Your task to perform on an android device: Set an alarm for 7pm Image 0: 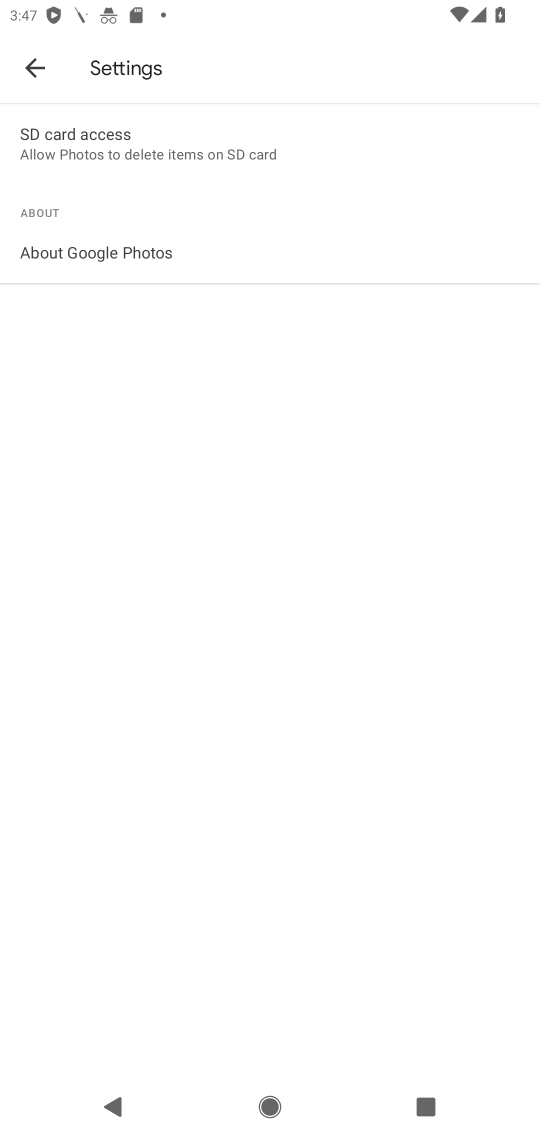
Step 0: press home button
Your task to perform on an android device: Set an alarm for 7pm Image 1: 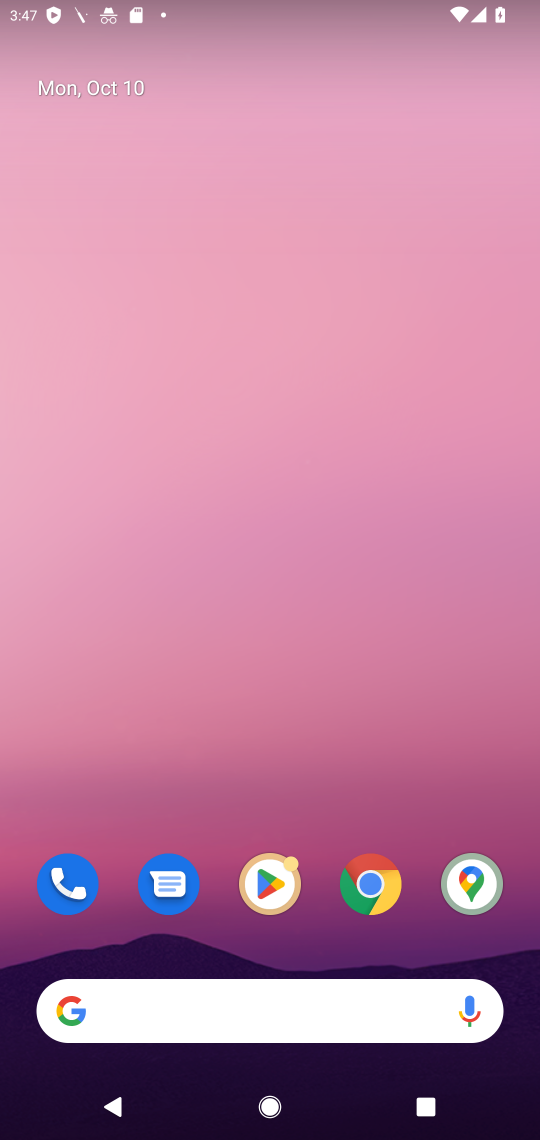
Step 1: drag from (209, 701) to (202, 292)
Your task to perform on an android device: Set an alarm for 7pm Image 2: 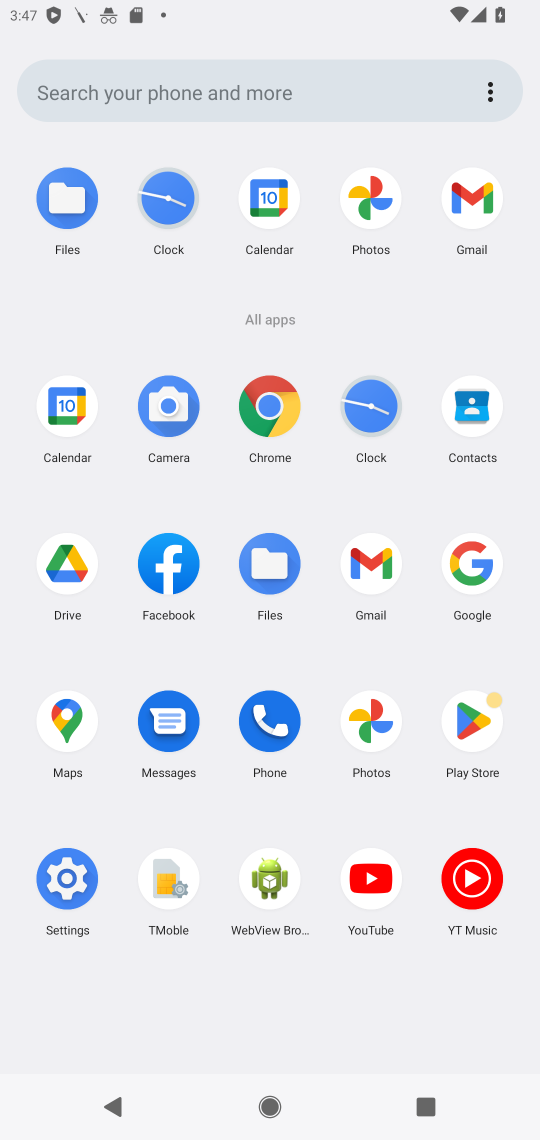
Step 2: click (159, 193)
Your task to perform on an android device: Set an alarm for 7pm Image 3: 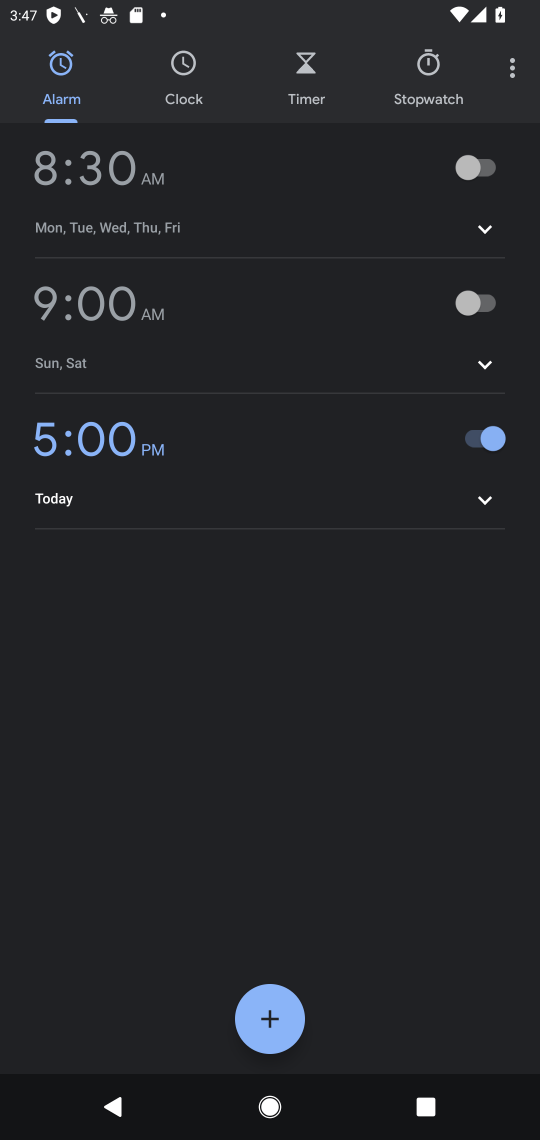
Step 3: click (271, 1024)
Your task to perform on an android device: Set an alarm for 7pm Image 4: 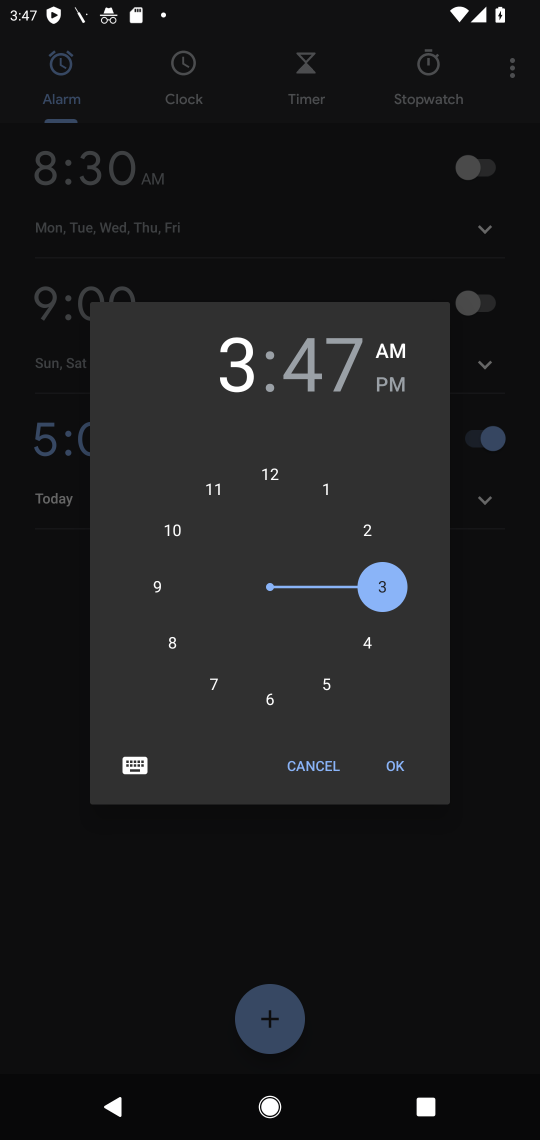
Step 4: click (392, 388)
Your task to perform on an android device: Set an alarm for 7pm Image 5: 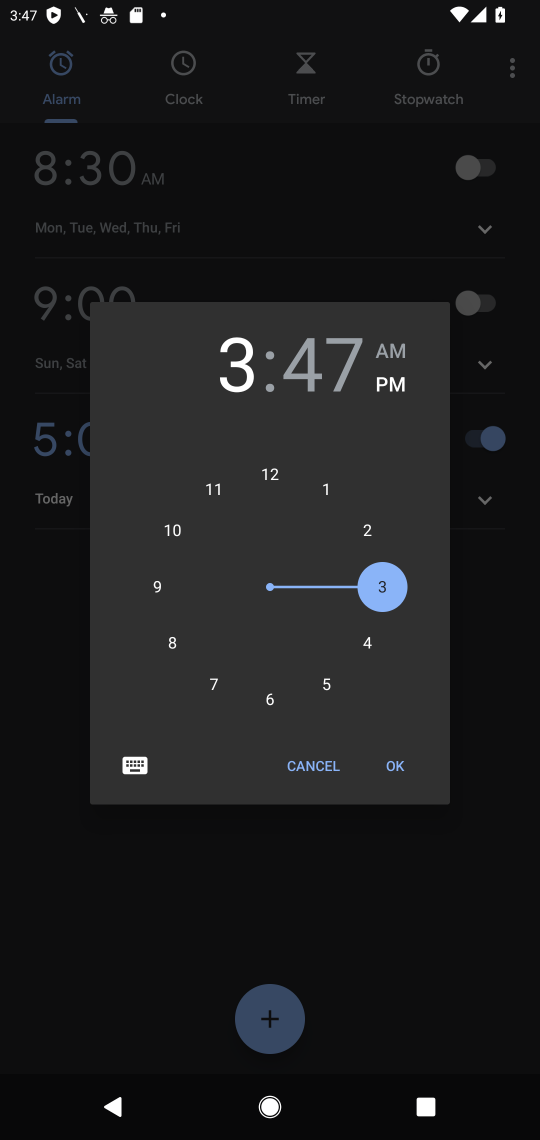
Step 5: click (218, 681)
Your task to perform on an android device: Set an alarm for 7pm Image 6: 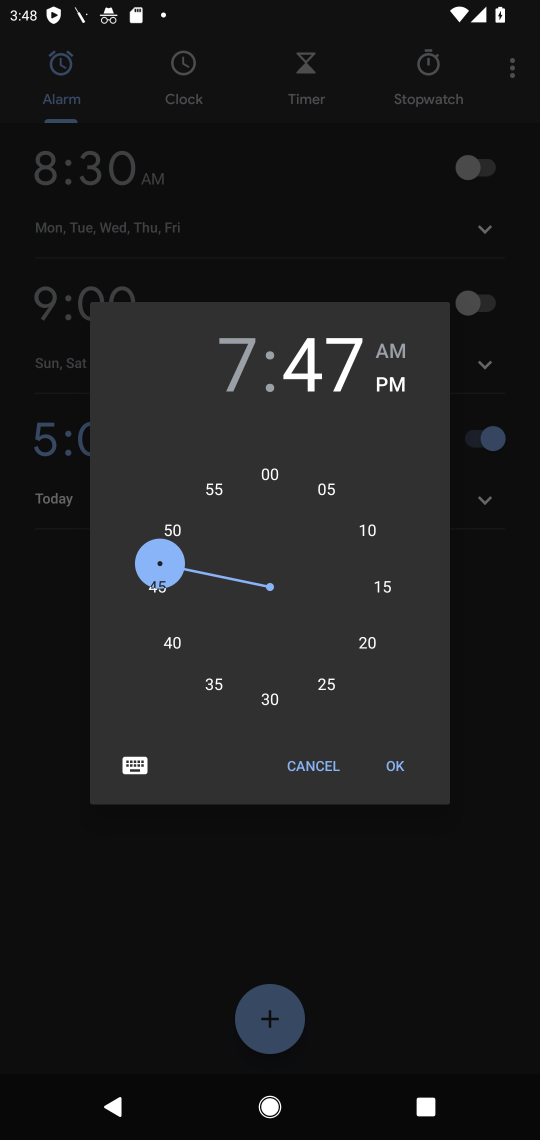
Step 6: click (272, 473)
Your task to perform on an android device: Set an alarm for 7pm Image 7: 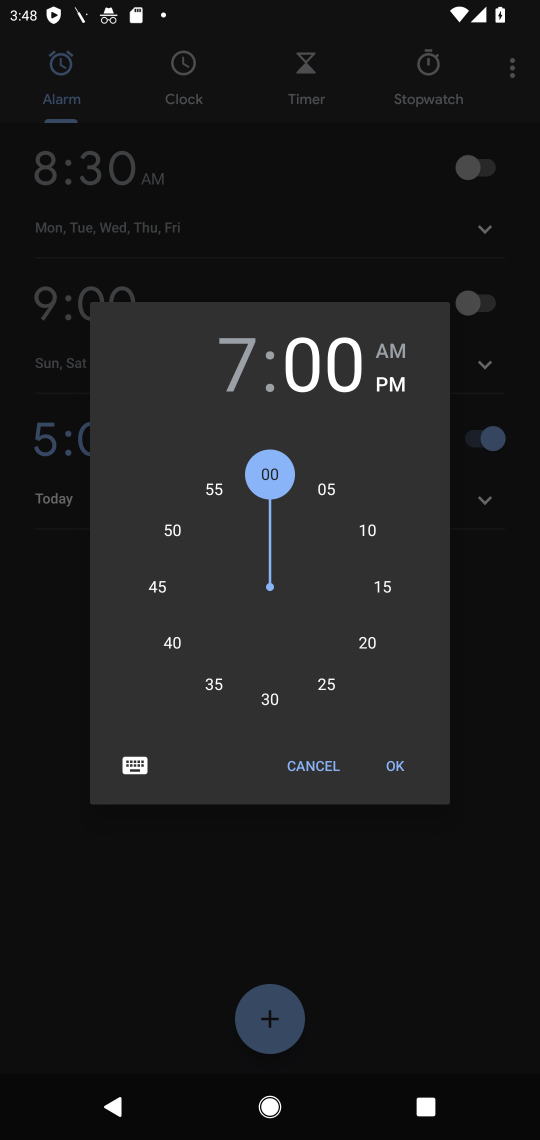
Step 7: click (391, 770)
Your task to perform on an android device: Set an alarm for 7pm Image 8: 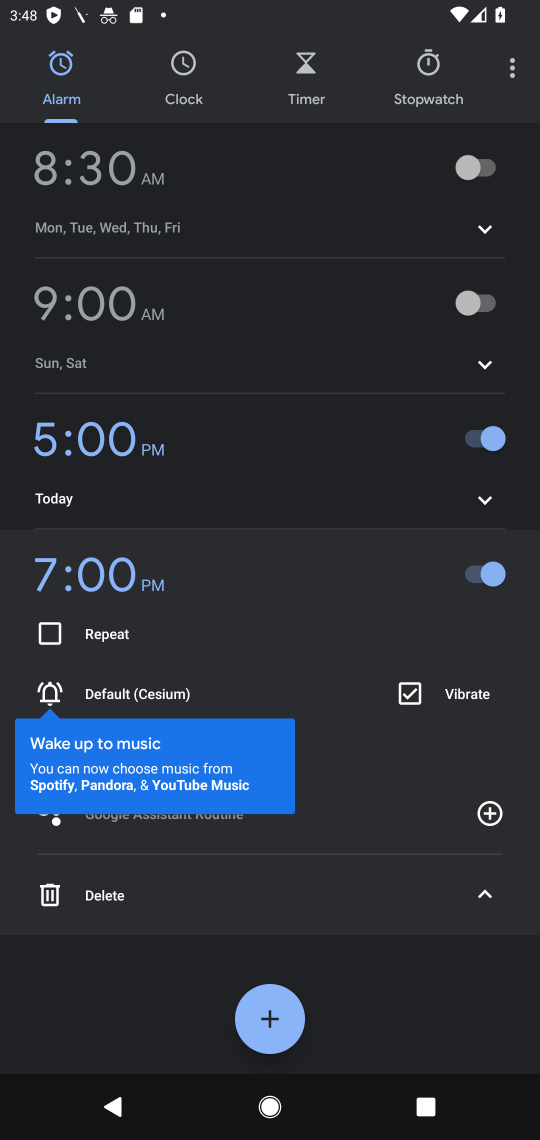
Step 8: task complete